Your task to perform on an android device: Show me popular games on the Play Store Image 0: 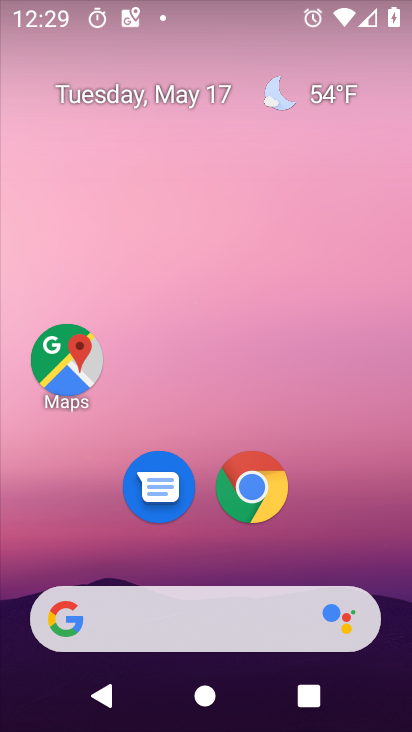
Step 0: drag from (218, 504) to (303, 34)
Your task to perform on an android device: Show me popular games on the Play Store Image 1: 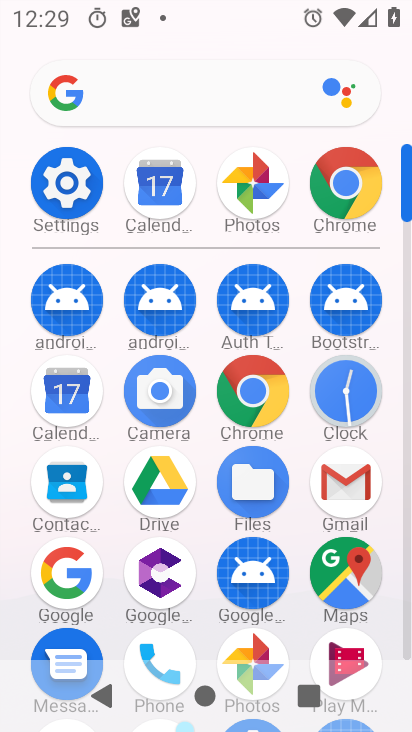
Step 1: drag from (244, 579) to (276, 113)
Your task to perform on an android device: Show me popular games on the Play Store Image 2: 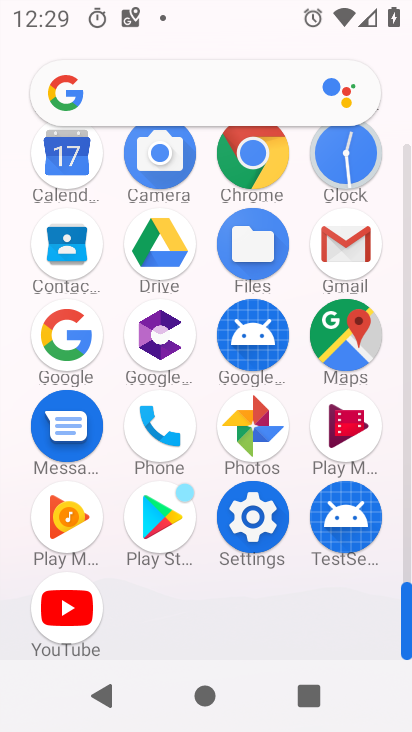
Step 2: click (154, 551)
Your task to perform on an android device: Show me popular games on the Play Store Image 3: 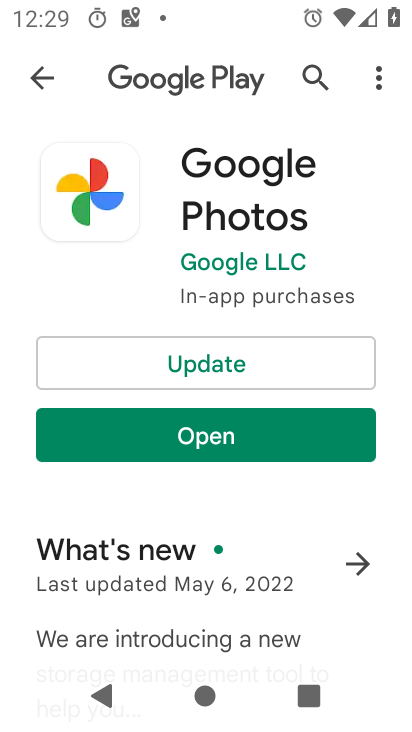
Step 3: click (39, 67)
Your task to perform on an android device: Show me popular games on the Play Store Image 4: 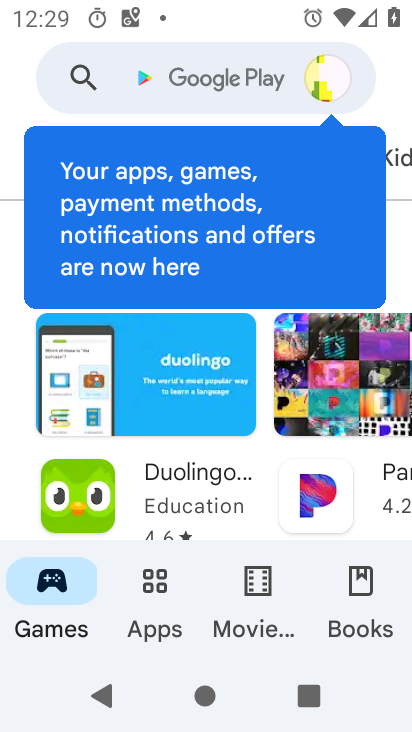
Step 4: click (51, 612)
Your task to perform on an android device: Show me popular games on the Play Store Image 5: 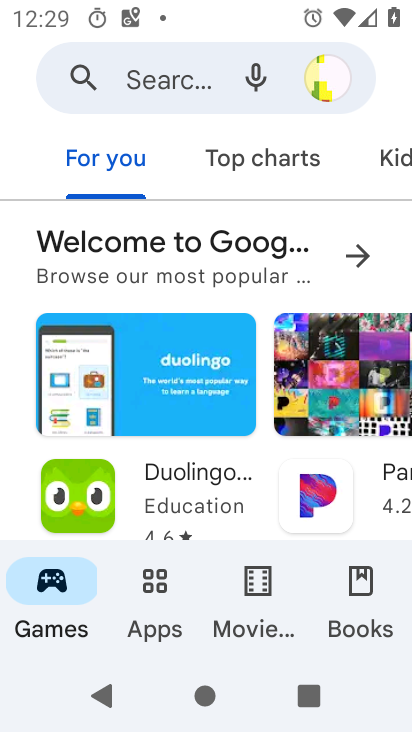
Step 5: drag from (195, 531) to (276, 55)
Your task to perform on an android device: Show me popular games on the Play Store Image 6: 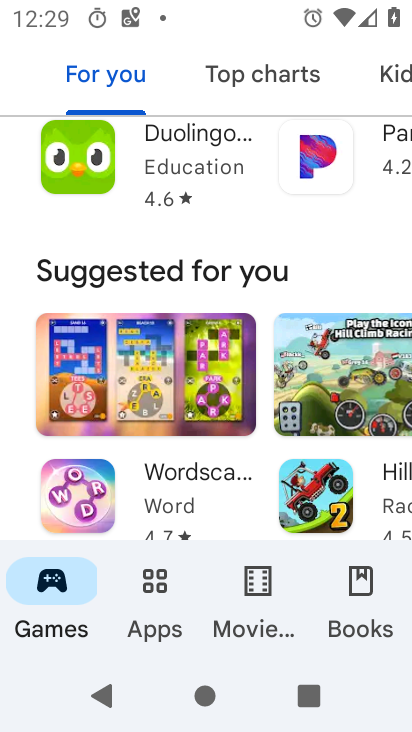
Step 6: drag from (201, 393) to (290, 10)
Your task to perform on an android device: Show me popular games on the Play Store Image 7: 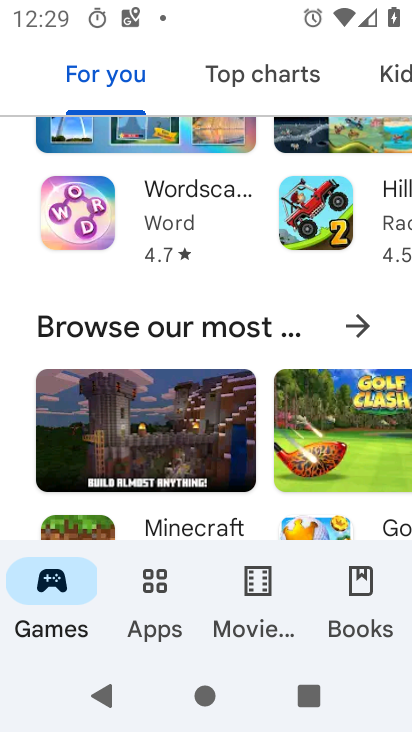
Step 7: click (342, 329)
Your task to perform on an android device: Show me popular games on the Play Store Image 8: 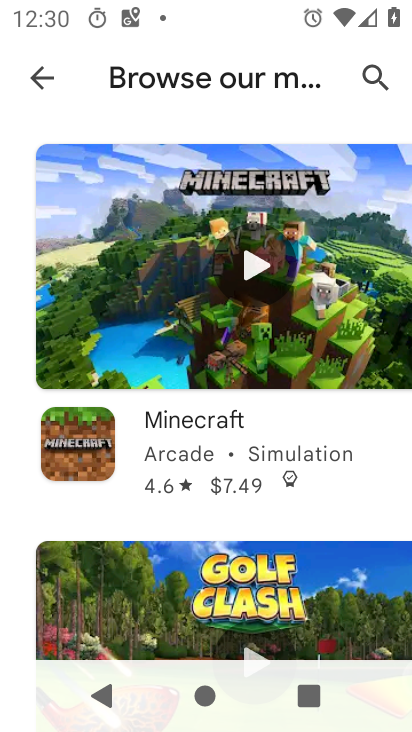
Step 8: task complete